Your task to perform on an android device: Open CNN.com Image 0: 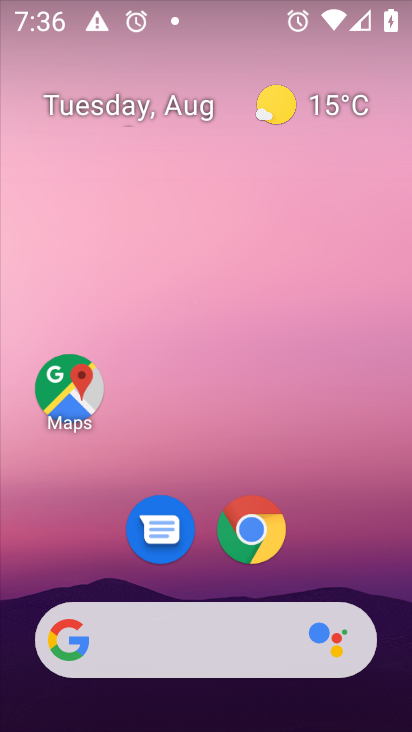
Step 0: press home button
Your task to perform on an android device: Open CNN.com Image 1: 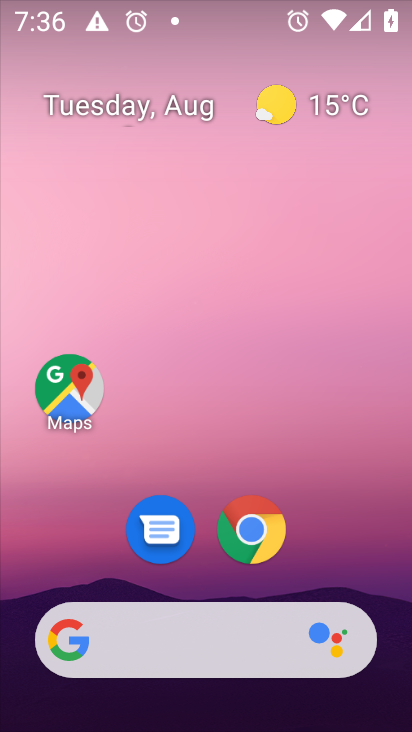
Step 1: click (57, 651)
Your task to perform on an android device: Open CNN.com Image 2: 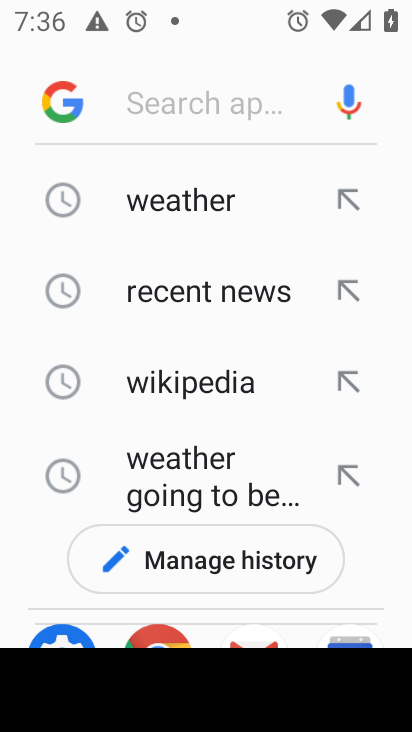
Step 2: type "CNN.com"
Your task to perform on an android device: Open CNN.com Image 3: 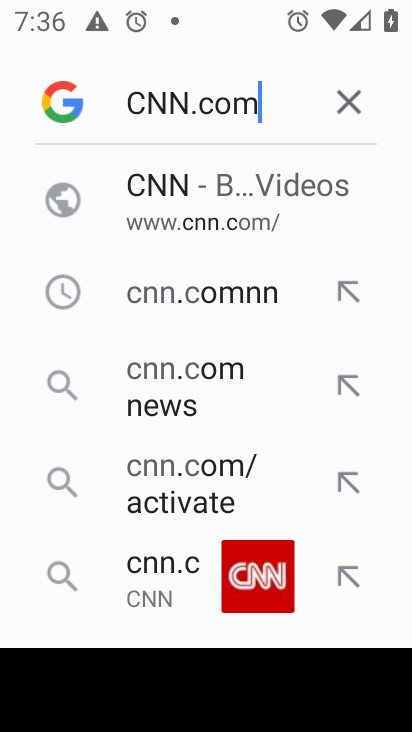
Step 3: press enter
Your task to perform on an android device: Open CNN.com Image 4: 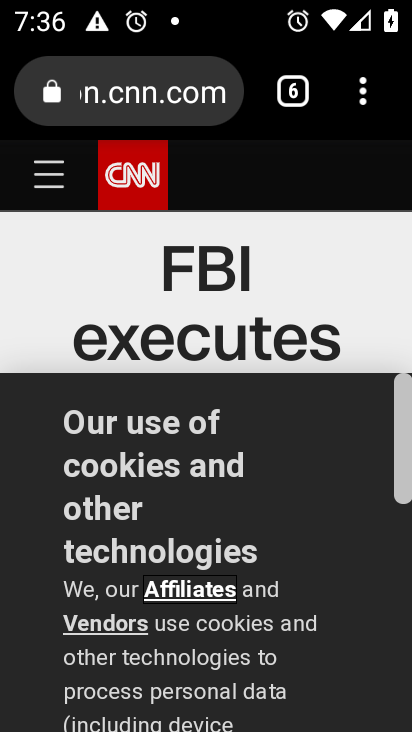
Step 4: task complete